Your task to perform on an android device: add a label to a message in the gmail app Image 0: 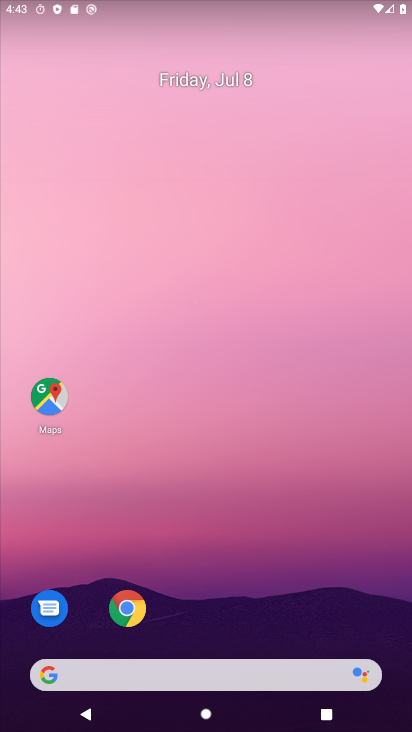
Step 0: press home button
Your task to perform on an android device: add a label to a message in the gmail app Image 1: 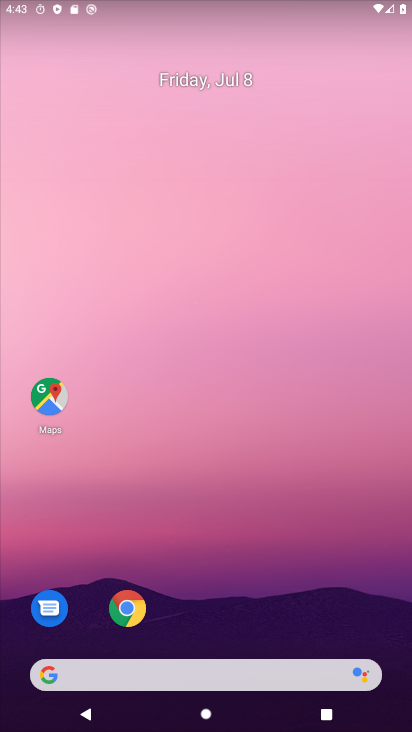
Step 1: drag from (236, 538) to (197, 95)
Your task to perform on an android device: add a label to a message in the gmail app Image 2: 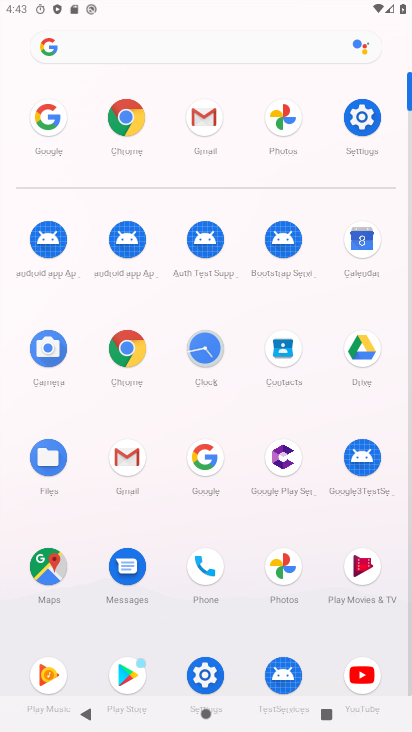
Step 2: click (204, 110)
Your task to perform on an android device: add a label to a message in the gmail app Image 3: 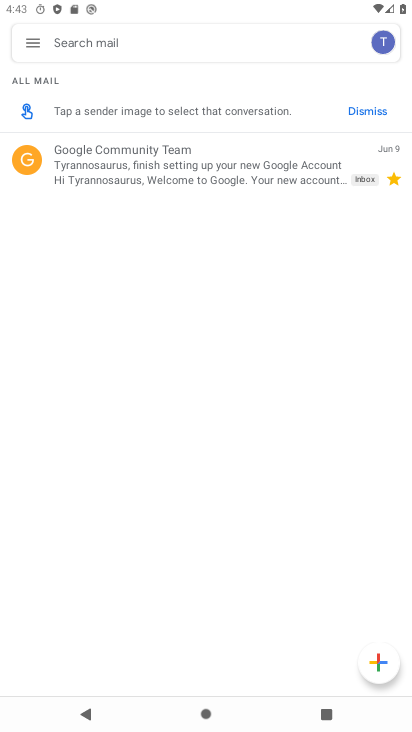
Step 3: click (213, 157)
Your task to perform on an android device: add a label to a message in the gmail app Image 4: 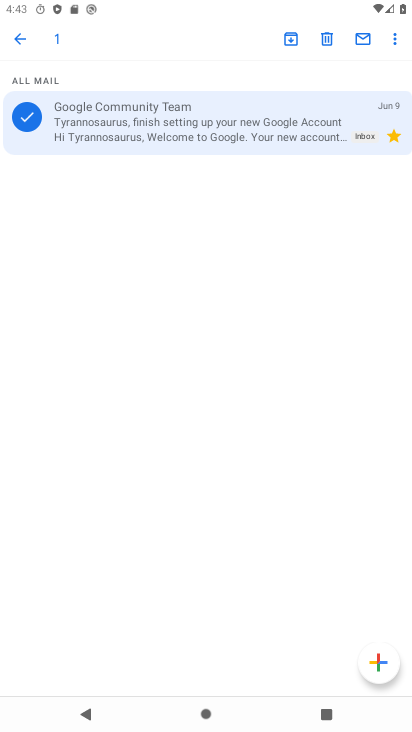
Step 4: click (395, 38)
Your task to perform on an android device: add a label to a message in the gmail app Image 5: 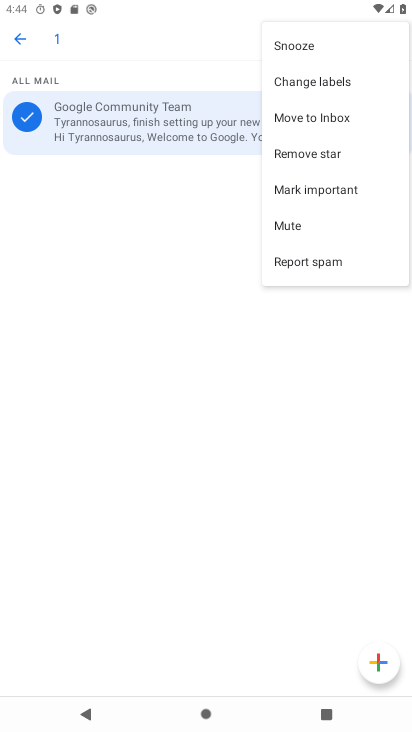
Step 5: click (336, 86)
Your task to perform on an android device: add a label to a message in the gmail app Image 6: 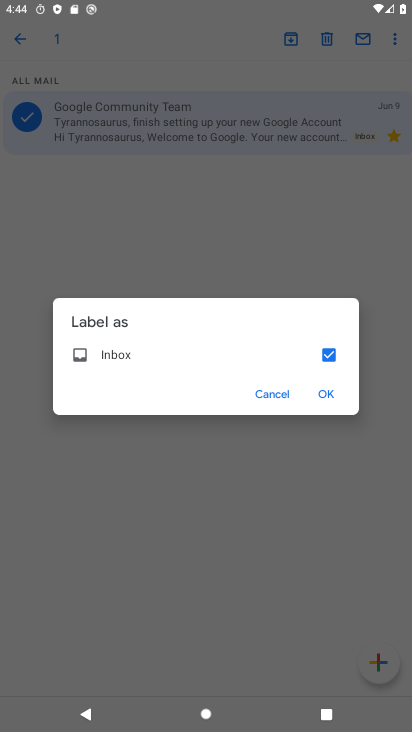
Step 6: click (326, 402)
Your task to perform on an android device: add a label to a message in the gmail app Image 7: 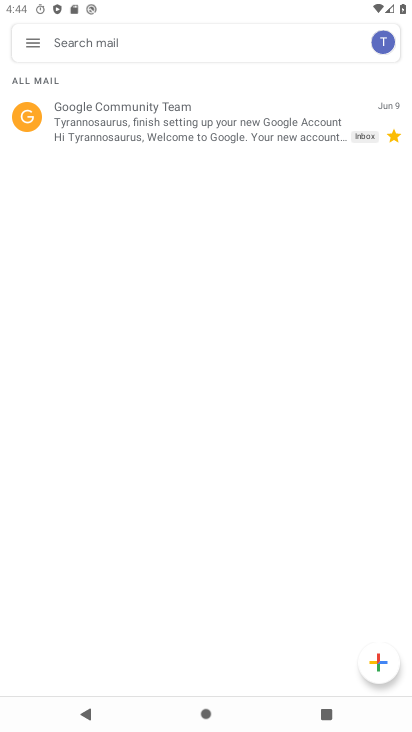
Step 7: click (329, 394)
Your task to perform on an android device: add a label to a message in the gmail app Image 8: 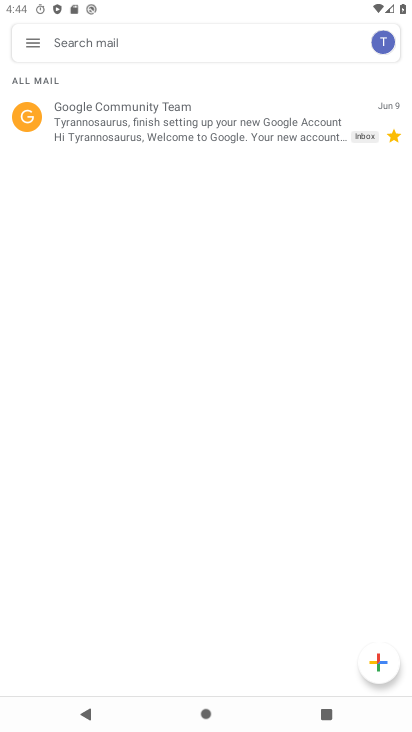
Step 8: task complete